Your task to perform on an android device: toggle show notifications on the lock screen Image 0: 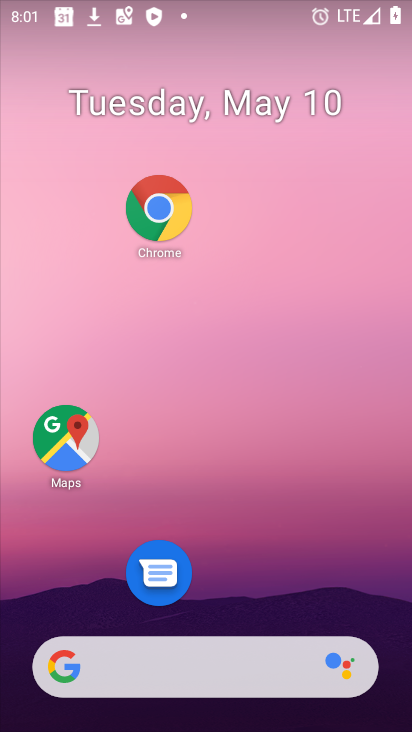
Step 0: drag from (292, 695) to (386, 215)
Your task to perform on an android device: toggle show notifications on the lock screen Image 1: 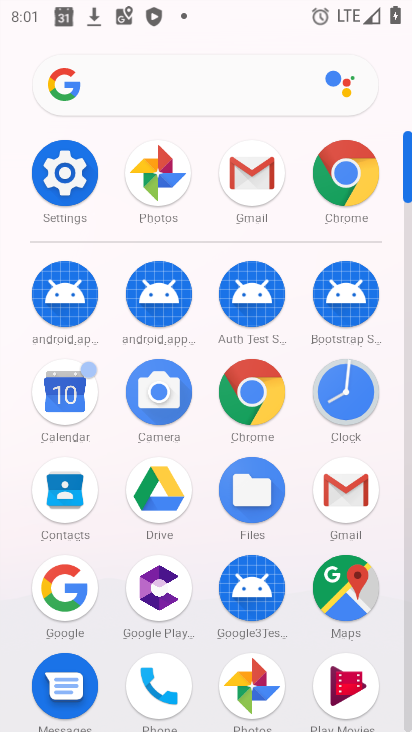
Step 1: click (66, 185)
Your task to perform on an android device: toggle show notifications on the lock screen Image 2: 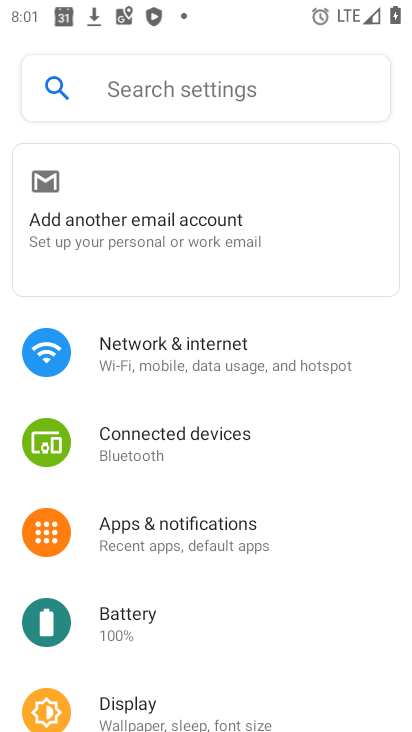
Step 2: click (161, 87)
Your task to perform on an android device: toggle show notifications on the lock screen Image 3: 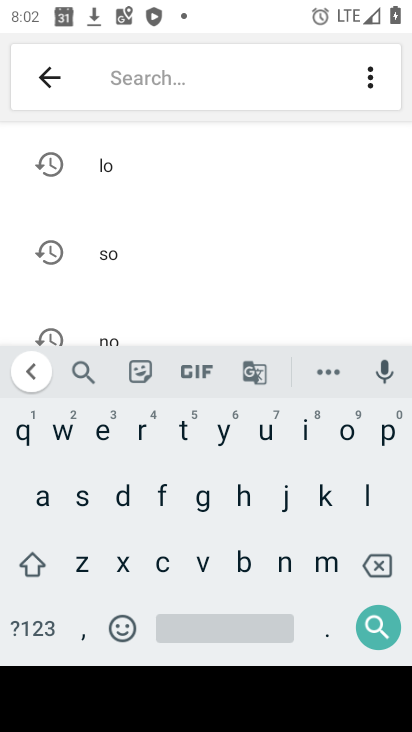
Step 3: click (287, 560)
Your task to perform on an android device: toggle show notifications on the lock screen Image 4: 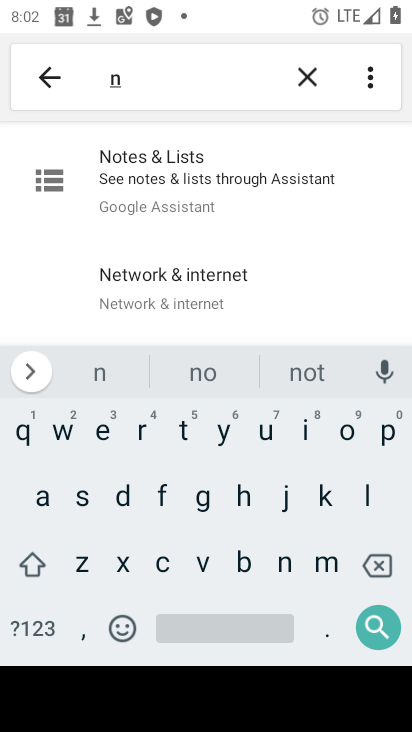
Step 4: click (337, 431)
Your task to perform on an android device: toggle show notifications on the lock screen Image 5: 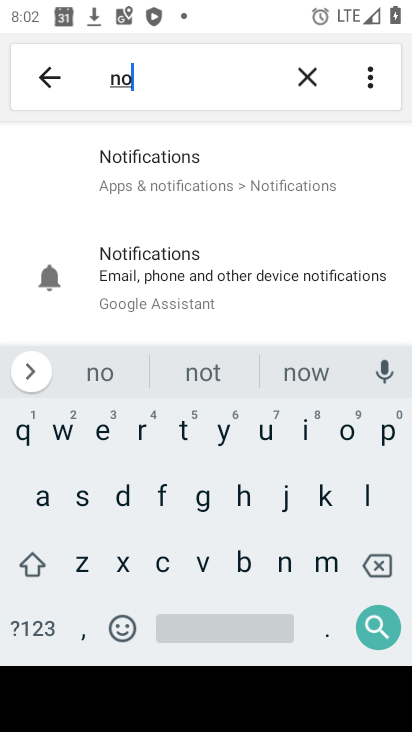
Step 5: click (196, 155)
Your task to perform on an android device: toggle show notifications on the lock screen Image 6: 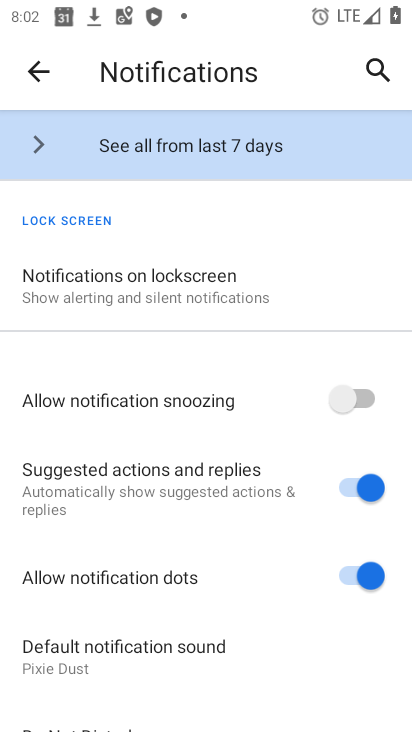
Step 6: click (99, 264)
Your task to perform on an android device: toggle show notifications on the lock screen Image 7: 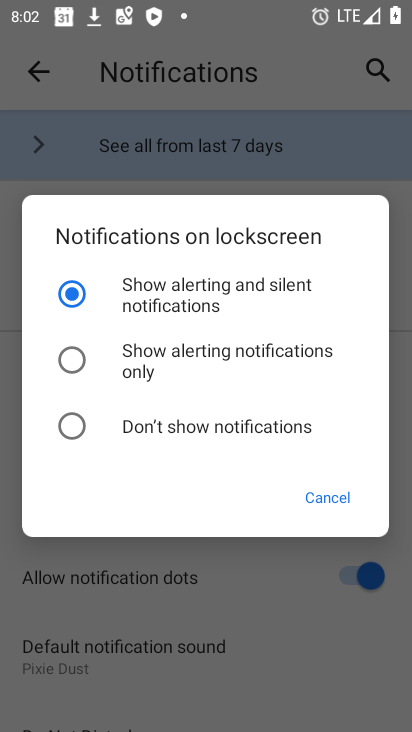
Step 7: task complete